Your task to perform on an android device: choose inbox layout in the gmail app Image 0: 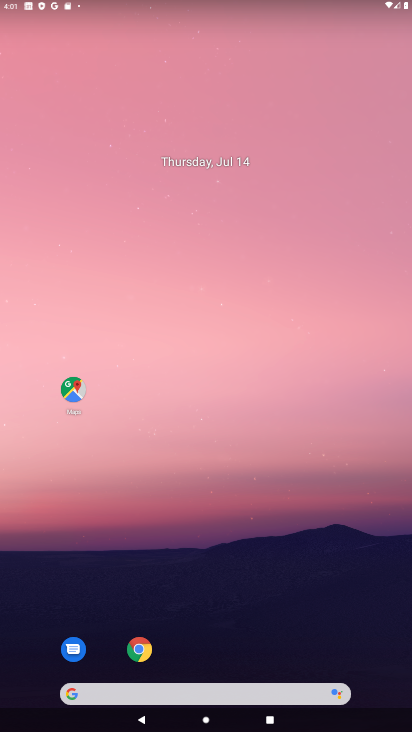
Step 0: drag from (198, 685) to (260, 353)
Your task to perform on an android device: choose inbox layout in the gmail app Image 1: 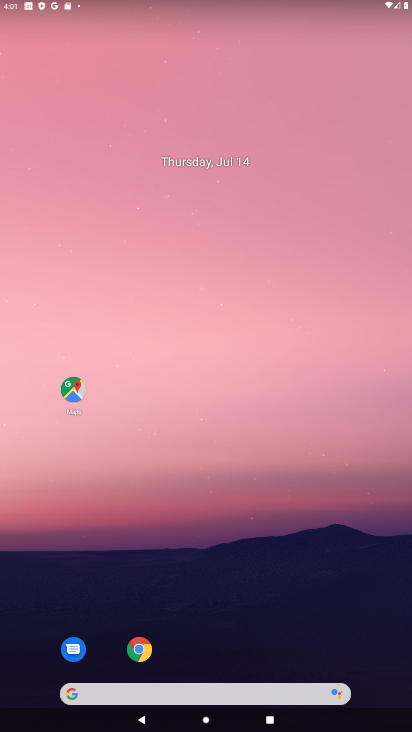
Step 1: drag from (206, 664) to (231, 248)
Your task to perform on an android device: choose inbox layout in the gmail app Image 2: 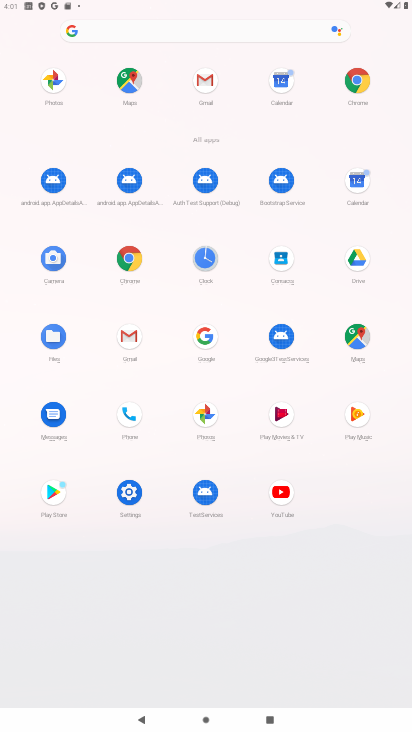
Step 2: click (126, 342)
Your task to perform on an android device: choose inbox layout in the gmail app Image 3: 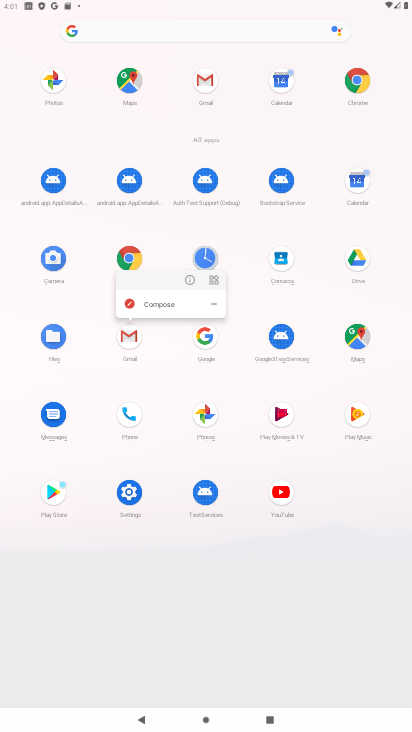
Step 3: click (126, 342)
Your task to perform on an android device: choose inbox layout in the gmail app Image 4: 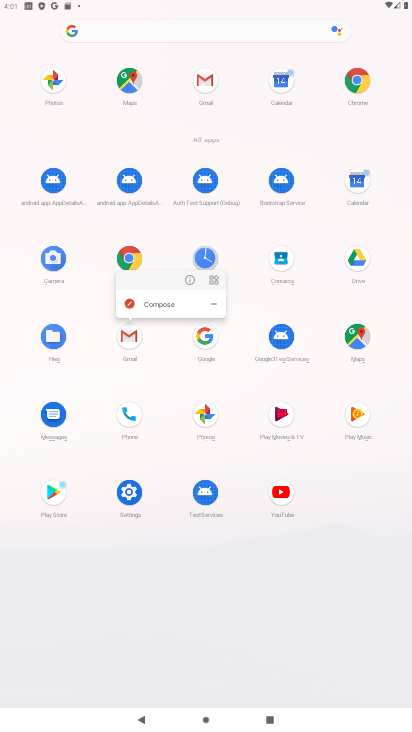
Step 4: click (126, 342)
Your task to perform on an android device: choose inbox layout in the gmail app Image 5: 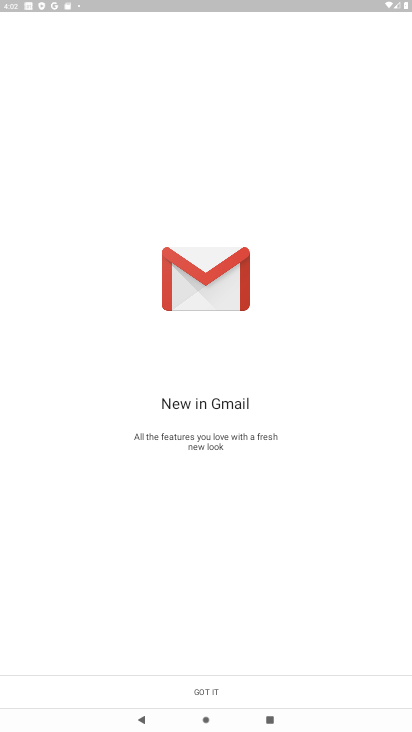
Step 5: click (192, 686)
Your task to perform on an android device: choose inbox layout in the gmail app Image 6: 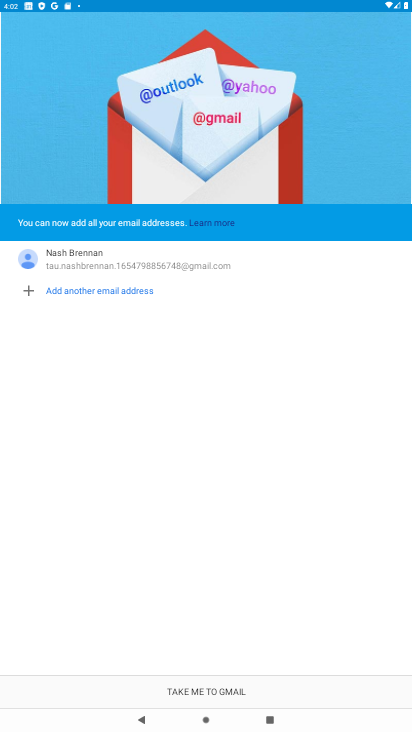
Step 6: click (189, 699)
Your task to perform on an android device: choose inbox layout in the gmail app Image 7: 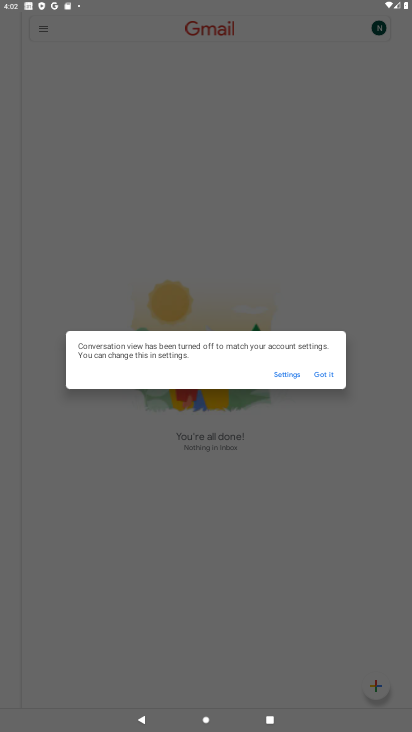
Step 7: click (188, 700)
Your task to perform on an android device: choose inbox layout in the gmail app Image 8: 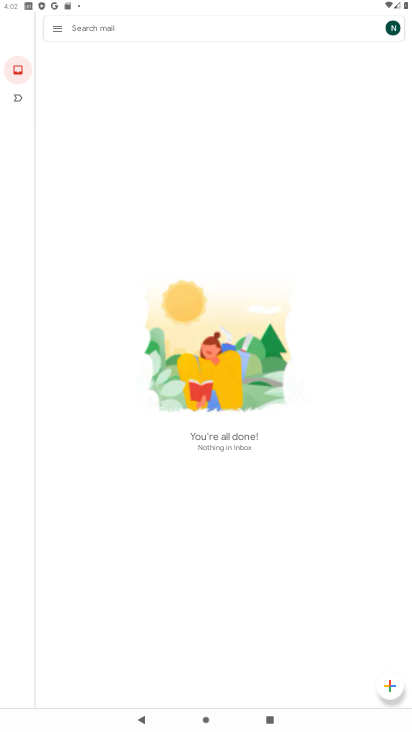
Step 8: click (55, 24)
Your task to perform on an android device: choose inbox layout in the gmail app Image 9: 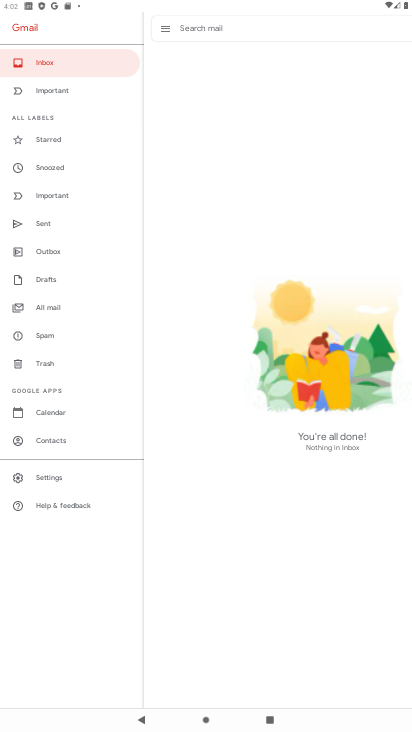
Step 9: click (68, 473)
Your task to perform on an android device: choose inbox layout in the gmail app Image 10: 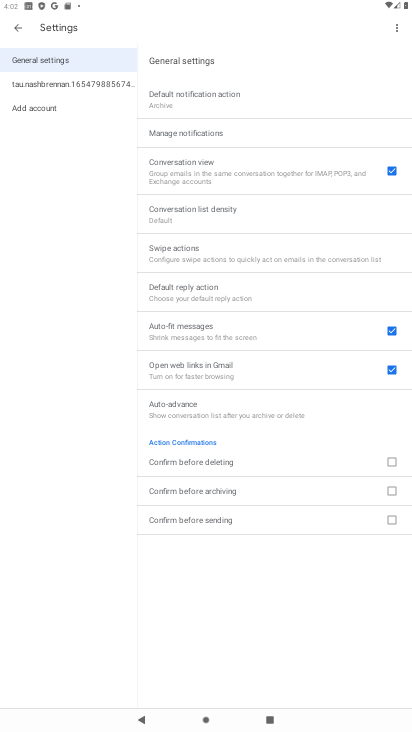
Step 10: click (100, 89)
Your task to perform on an android device: choose inbox layout in the gmail app Image 11: 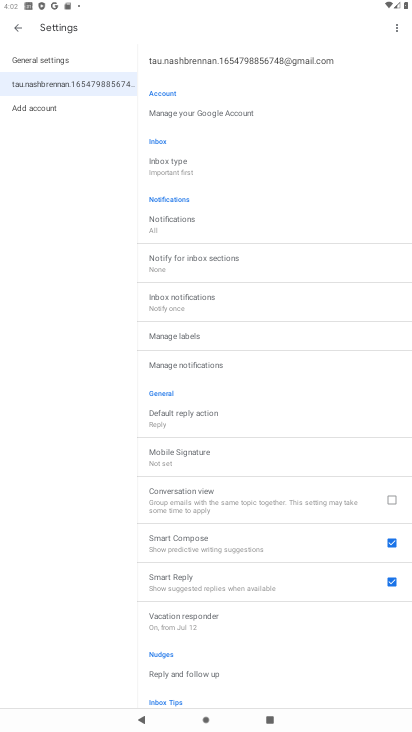
Step 11: click (270, 160)
Your task to perform on an android device: choose inbox layout in the gmail app Image 12: 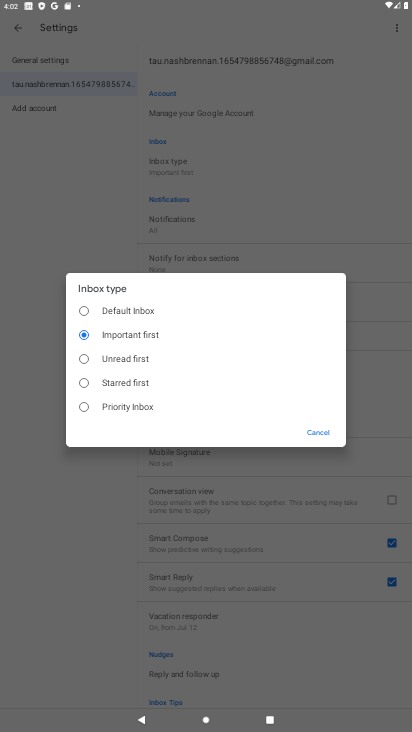
Step 12: click (178, 313)
Your task to perform on an android device: choose inbox layout in the gmail app Image 13: 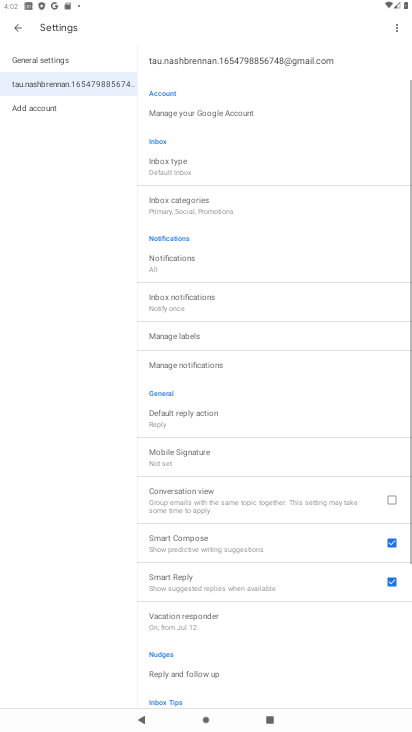
Step 13: task complete